Your task to perform on an android device: turn off notifications settings in the gmail app Image 0: 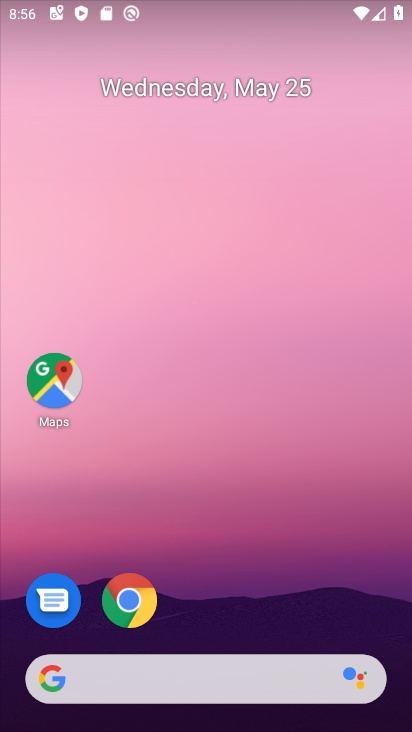
Step 0: drag from (289, 577) to (200, 4)
Your task to perform on an android device: turn off notifications settings in the gmail app Image 1: 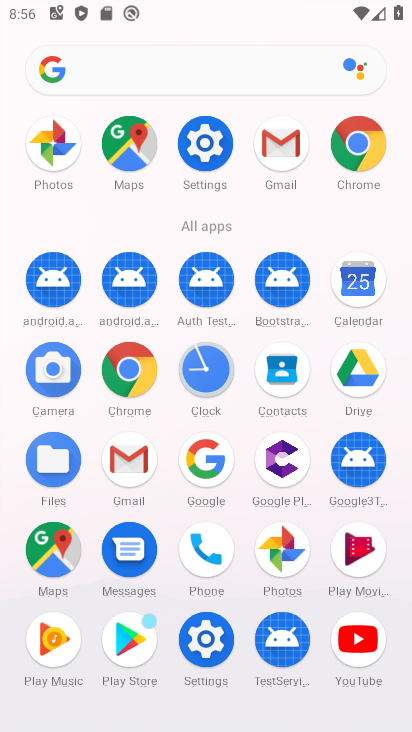
Step 1: drag from (14, 631) to (7, 267)
Your task to perform on an android device: turn off notifications settings in the gmail app Image 2: 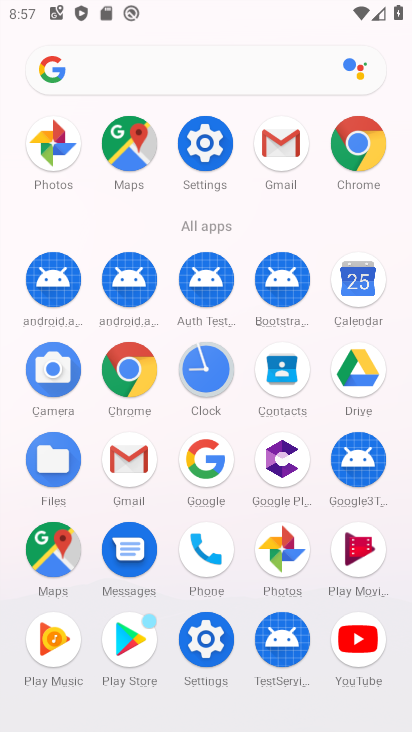
Step 2: click (126, 455)
Your task to perform on an android device: turn off notifications settings in the gmail app Image 3: 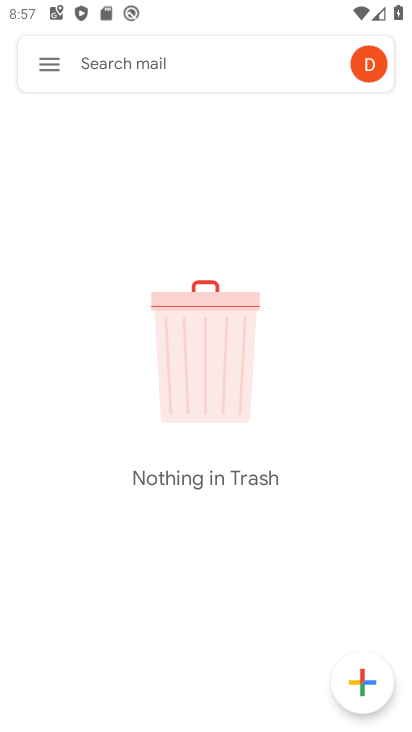
Step 3: click (58, 66)
Your task to perform on an android device: turn off notifications settings in the gmail app Image 4: 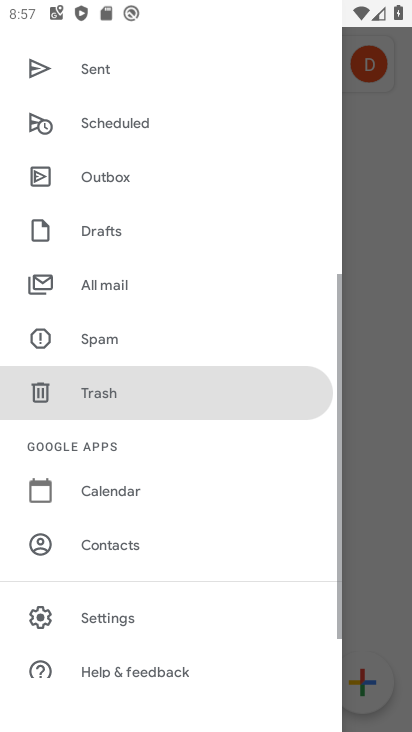
Step 4: click (130, 620)
Your task to perform on an android device: turn off notifications settings in the gmail app Image 5: 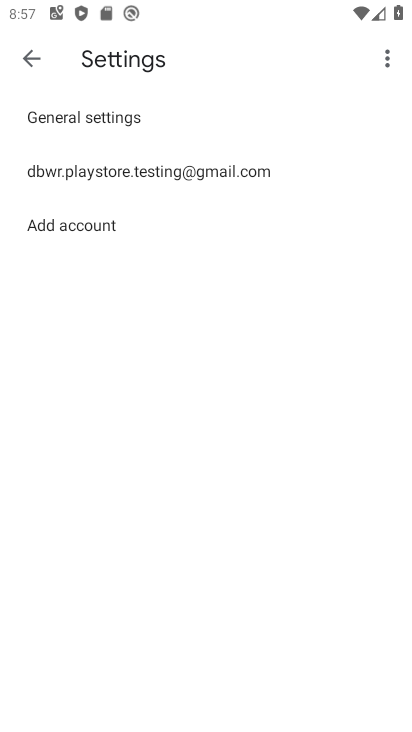
Step 5: click (187, 158)
Your task to perform on an android device: turn off notifications settings in the gmail app Image 6: 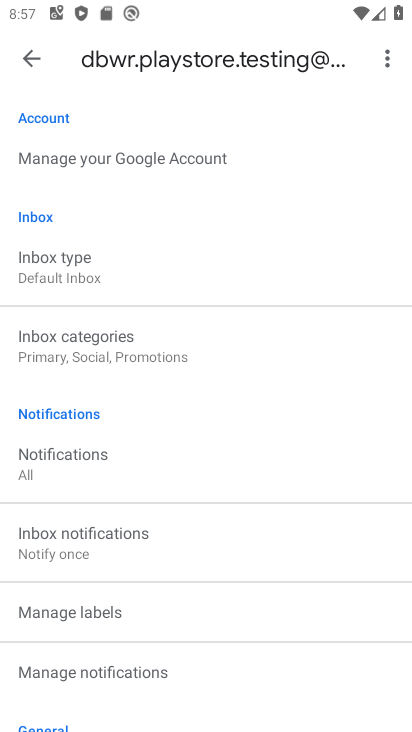
Step 6: drag from (197, 679) to (249, 362)
Your task to perform on an android device: turn off notifications settings in the gmail app Image 7: 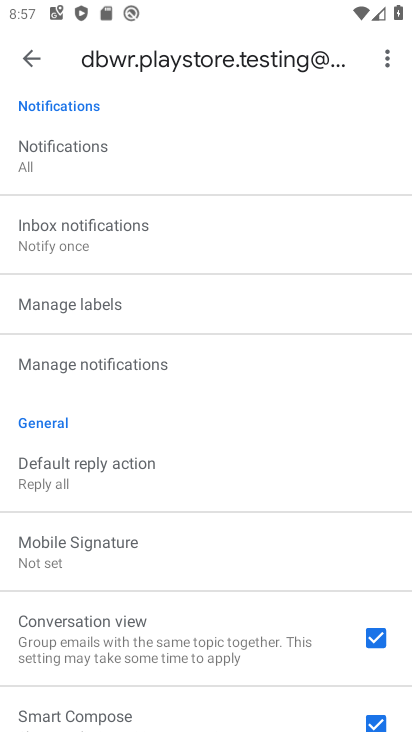
Step 7: click (114, 366)
Your task to perform on an android device: turn off notifications settings in the gmail app Image 8: 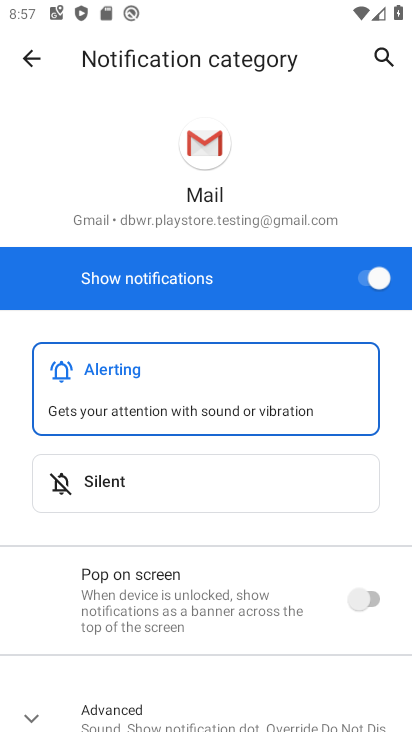
Step 8: click (371, 266)
Your task to perform on an android device: turn off notifications settings in the gmail app Image 9: 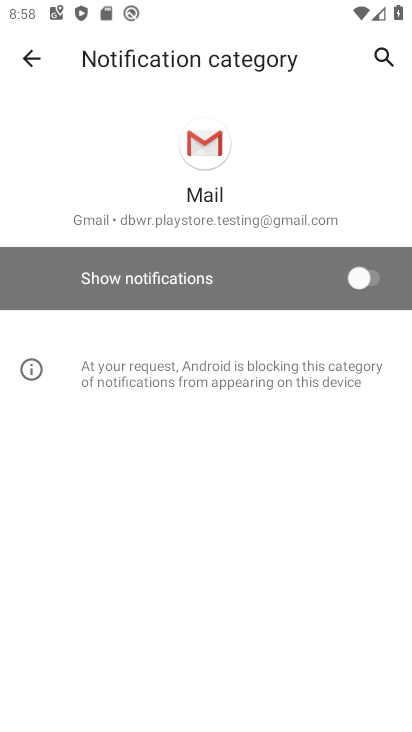
Step 9: task complete